Your task to perform on an android device: Turn off the flashlight Image 0: 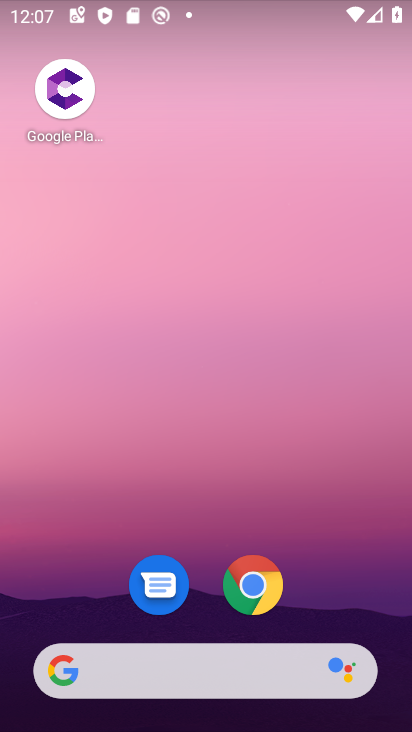
Step 0: drag from (246, 509) to (233, 41)
Your task to perform on an android device: Turn off the flashlight Image 1: 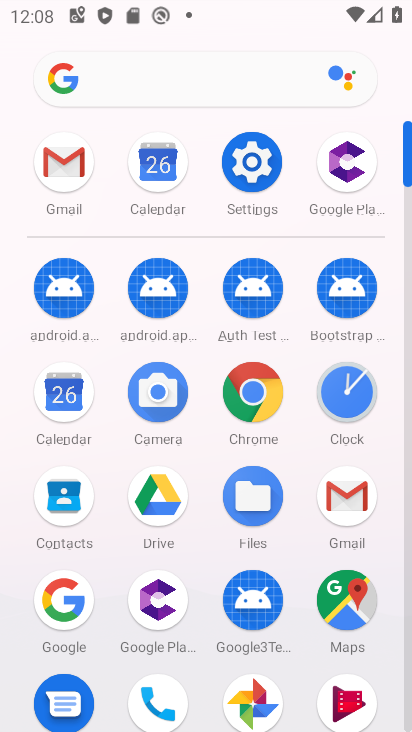
Step 1: click (260, 157)
Your task to perform on an android device: Turn off the flashlight Image 2: 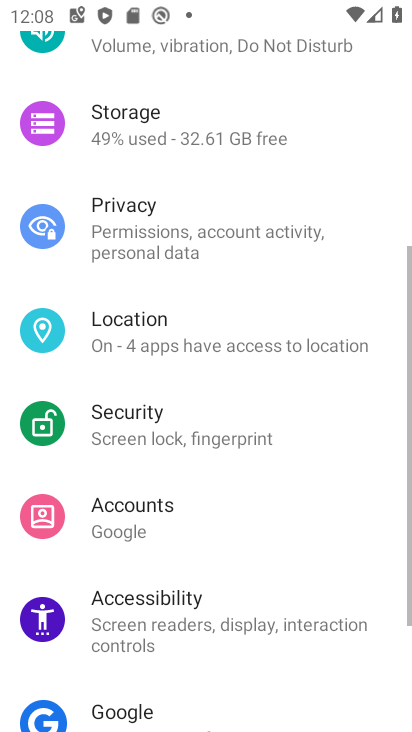
Step 2: drag from (260, 173) to (229, 719)
Your task to perform on an android device: Turn off the flashlight Image 3: 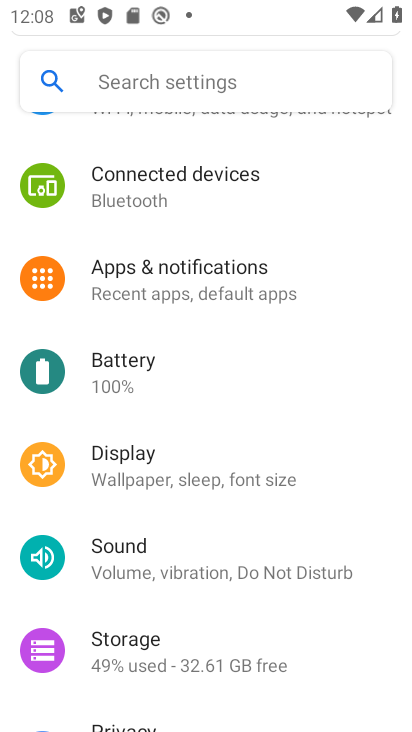
Step 3: drag from (210, 207) to (245, 625)
Your task to perform on an android device: Turn off the flashlight Image 4: 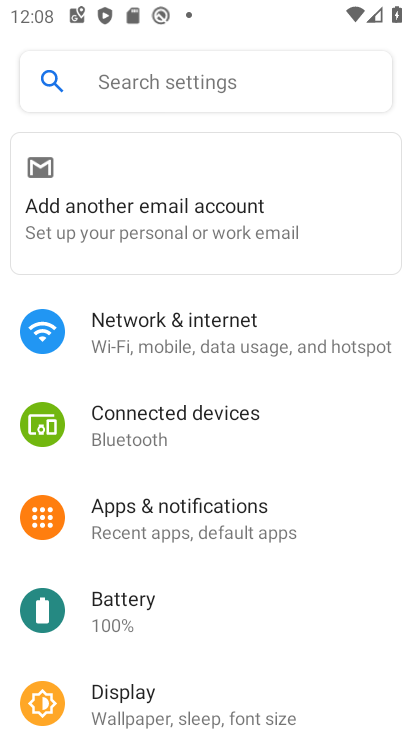
Step 4: click (235, 70)
Your task to perform on an android device: Turn off the flashlight Image 5: 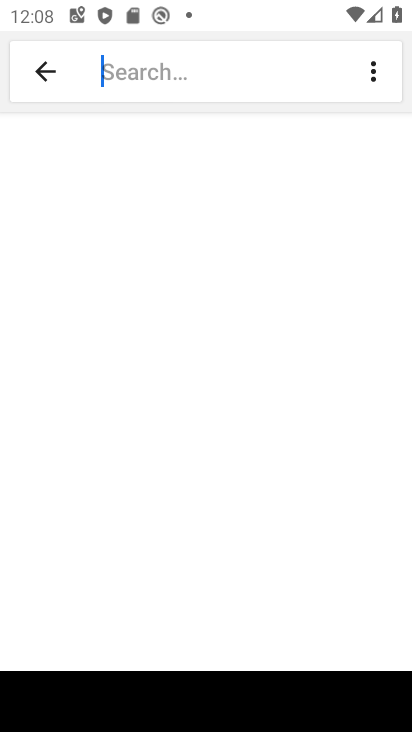
Step 5: type "Flashlight"
Your task to perform on an android device: Turn off the flashlight Image 6: 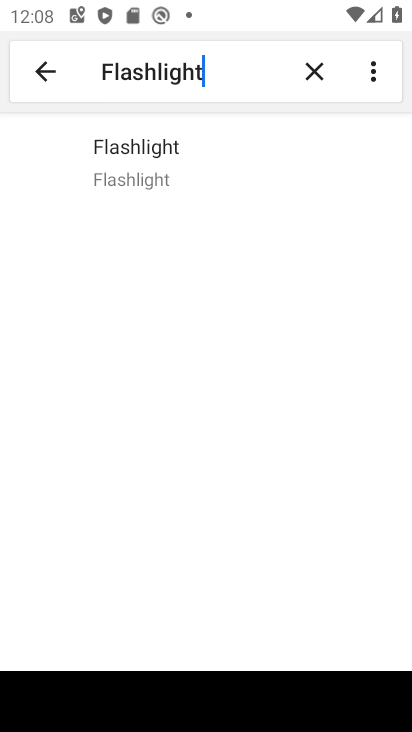
Step 6: click (154, 163)
Your task to perform on an android device: Turn off the flashlight Image 7: 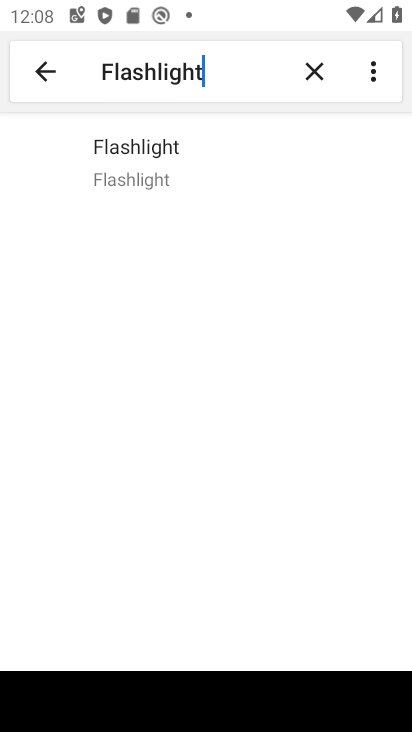
Step 7: click (154, 163)
Your task to perform on an android device: Turn off the flashlight Image 8: 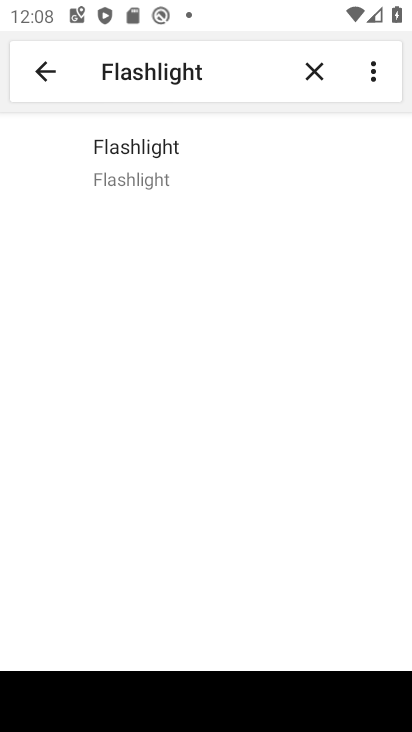
Step 8: task complete